Your task to perform on an android device: Go to network settings Image 0: 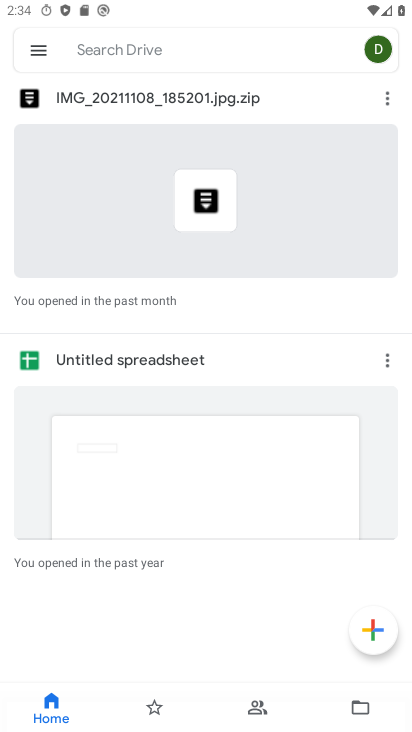
Step 0: press home button
Your task to perform on an android device: Go to network settings Image 1: 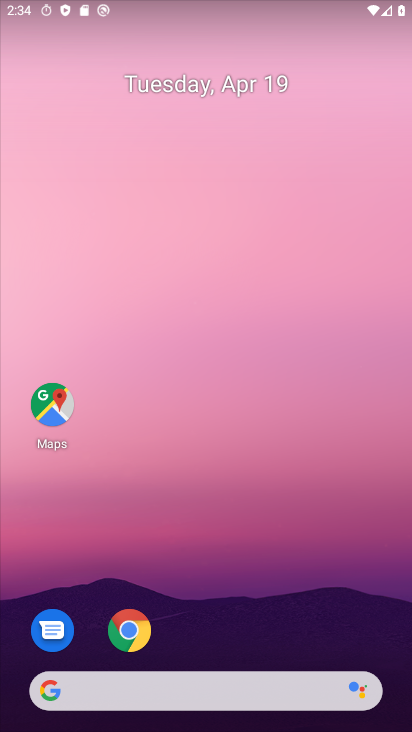
Step 1: drag from (261, 584) to (261, 73)
Your task to perform on an android device: Go to network settings Image 2: 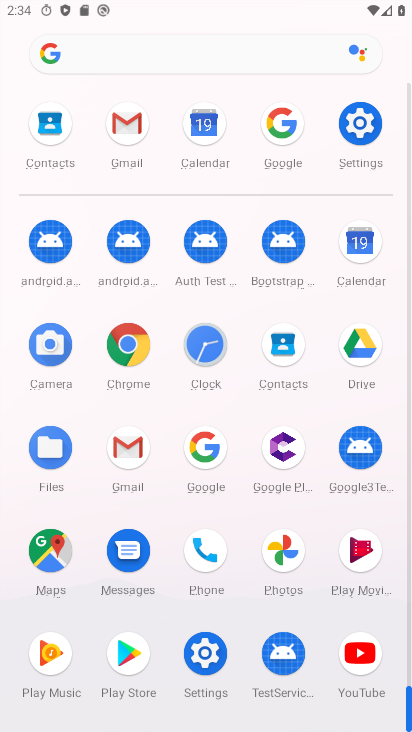
Step 2: click (359, 124)
Your task to perform on an android device: Go to network settings Image 3: 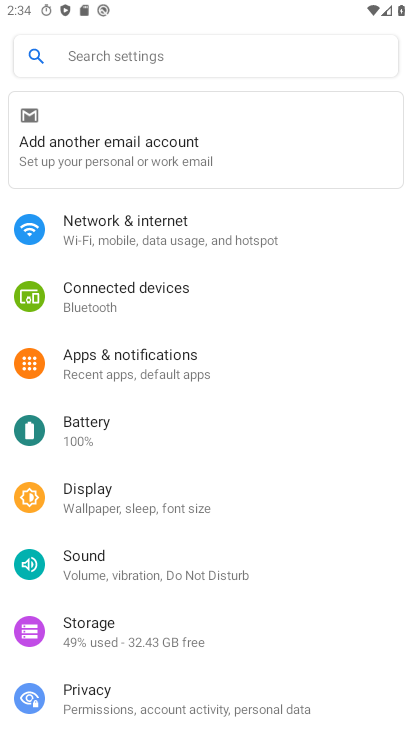
Step 3: click (159, 226)
Your task to perform on an android device: Go to network settings Image 4: 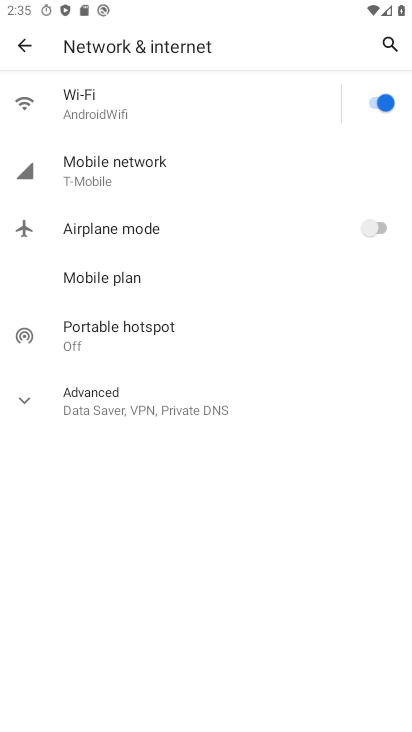
Step 4: task complete